Your task to perform on an android device: set the timer Image 0: 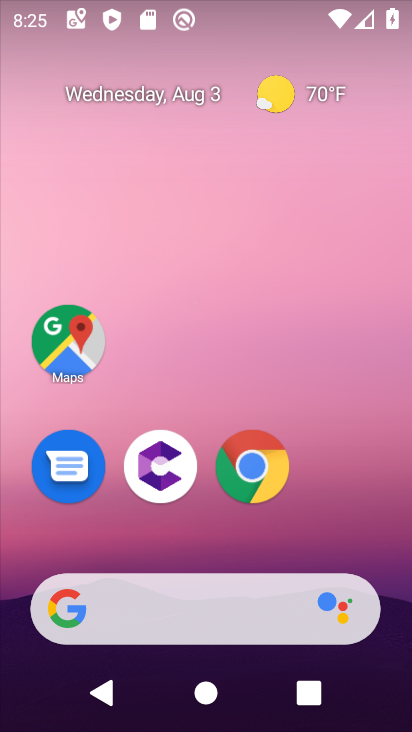
Step 0: click (392, 40)
Your task to perform on an android device: set the timer Image 1: 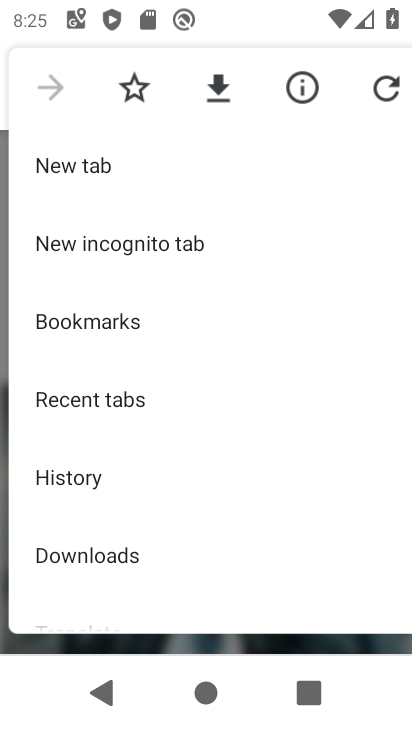
Step 1: press home button
Your task to perform on an android device: set the timer Image 2: 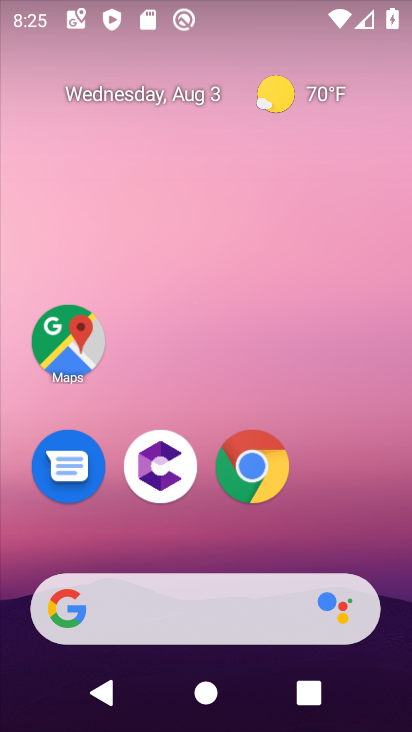
Step 2: click (339, 250)
Your task to perform on an android device: set the timer Image 3: 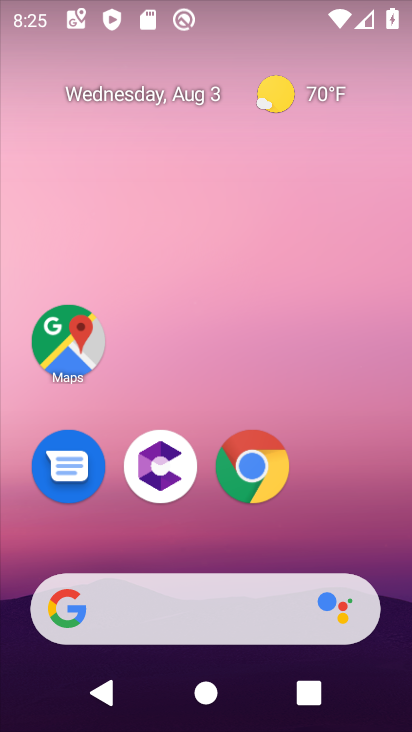
Step 3: drag from (345, 476) to (311, 189)
Your task to perform on an android device: set the timer Image 4: 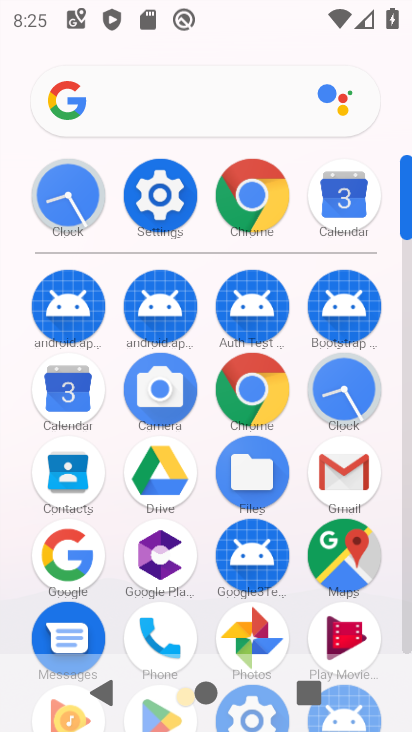
Step 4: click (342, 387)
Your task to perform on an android device: set the timer Image 5: 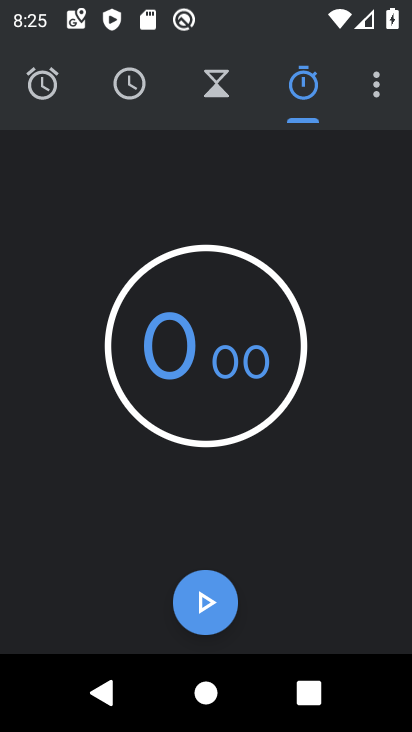
Step 5: click (381, 88)
Your task to perform on an android device: set the timer Image 6: 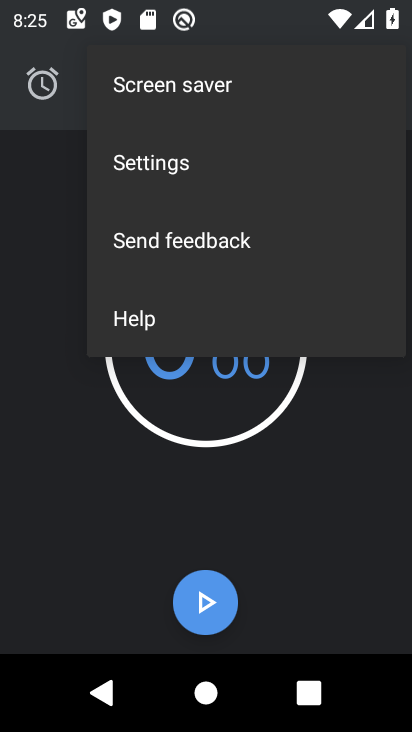
Step 6: click (106, 499)
Your task to perform on an android device: set the timer Image 7: 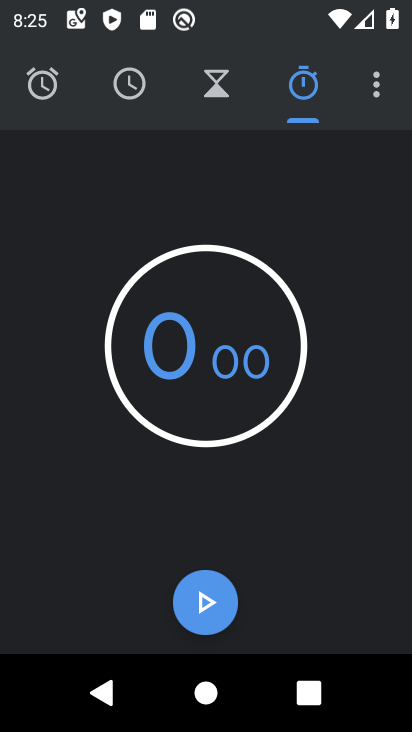
Step 7: click (218, 95)
Your task to perform on an android device: set the timer Image 8: 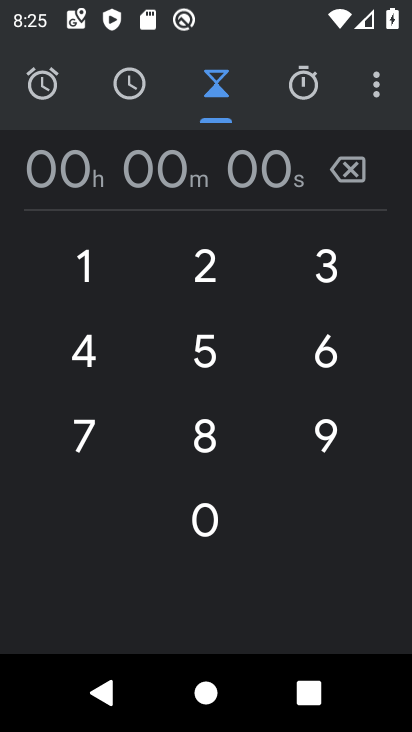
Step 8: click (197, 341)
Your task to perform on an android device: set the timer Image 9: 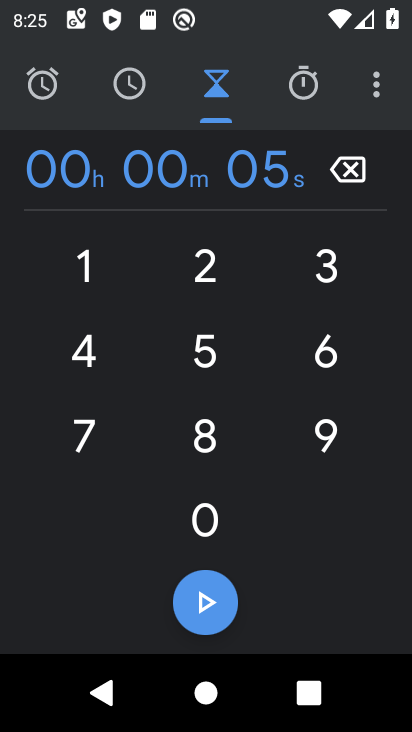
Step 9: task complete